Your task to perform on an android device: turn off data saver in the chrome app Image 0: 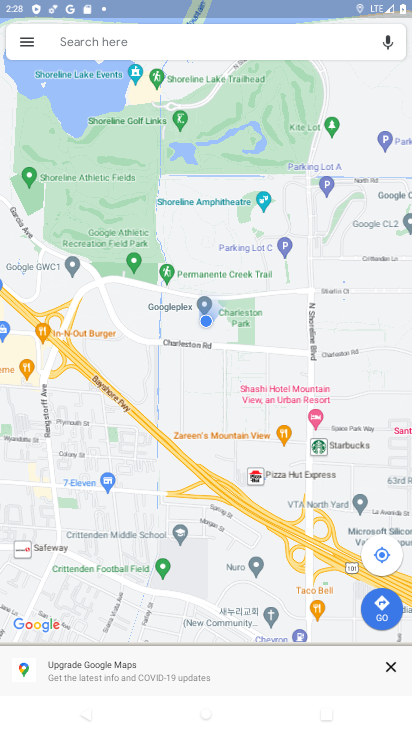
Step 0: press home button
Your task to perform on an android device: turn off data saver in the chrome app Image 1: 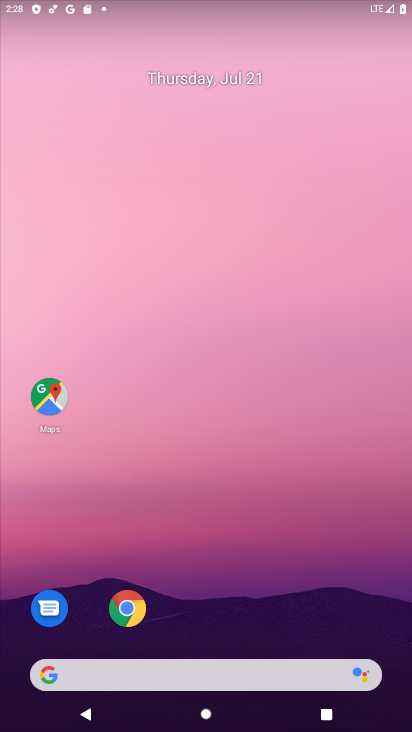
Step 1: drag from (219, 655) to (184, 62)
Your task to perform on an android device: turn off data saver in the chrome app Image 2: 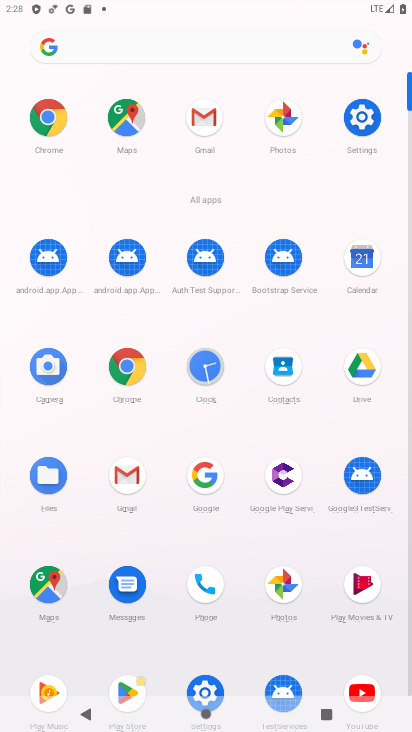
Step 2: click (134, 364)
Your task to perform on an android device: turn off data saver in the chrome app Image 3: 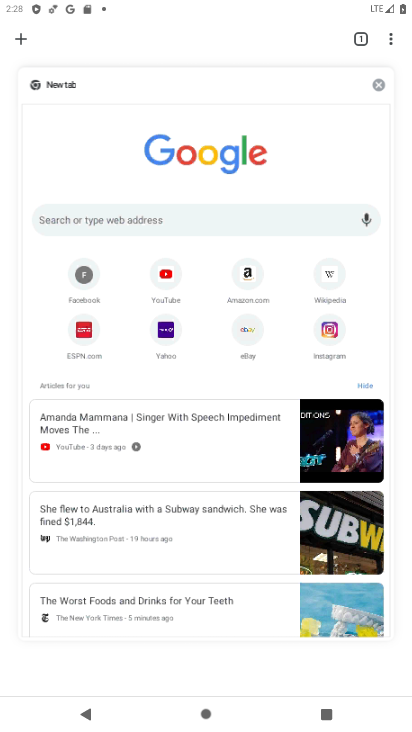
Step 3: click (348, 124)
Your task to perform on an android device: turn off data saver in the chrome app Image 4: 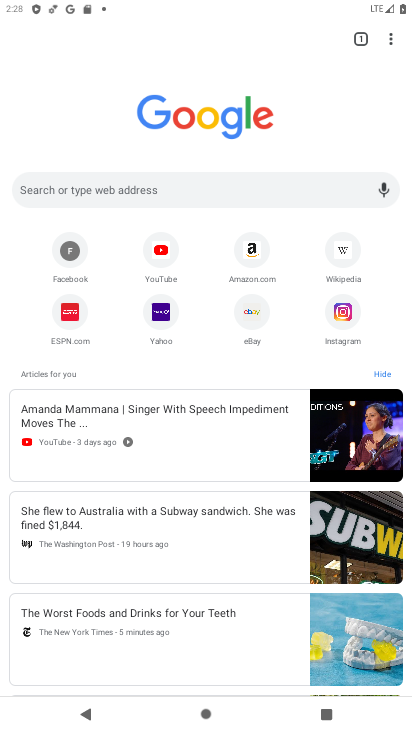
Step 4: drag from (393, 35) to (247, 366)
Your task to perform on an android device: turn off data saver in the chrome app Image 5: 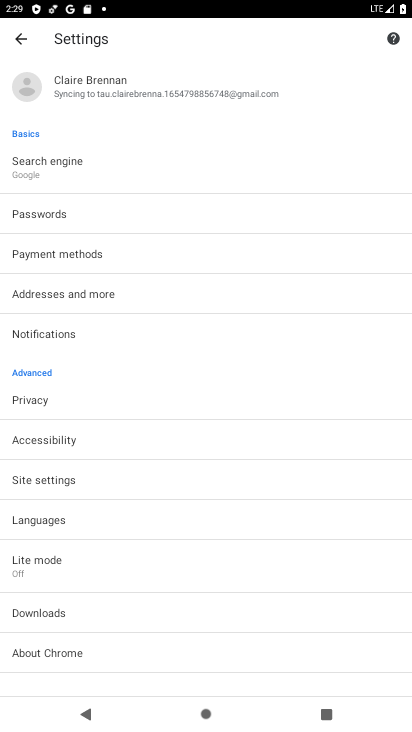
Step 5: click (71, 545)
Your task to perform on an android device: turn off data saver in the chrome app Image 6: 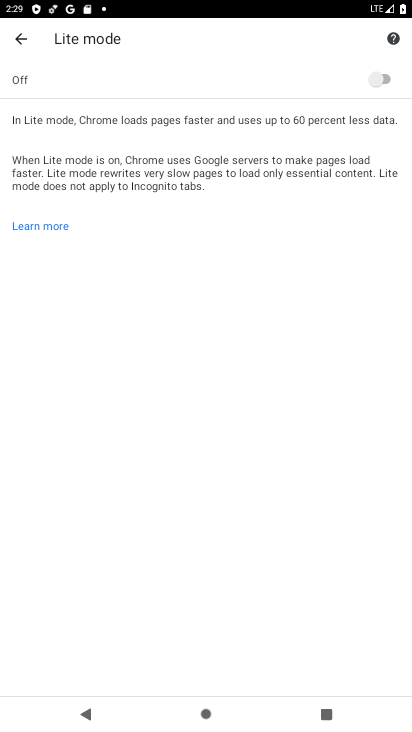
Step 6: task complete